Your task to perform on an android device: open the mobile data screen to see how much data has been used Image 0: 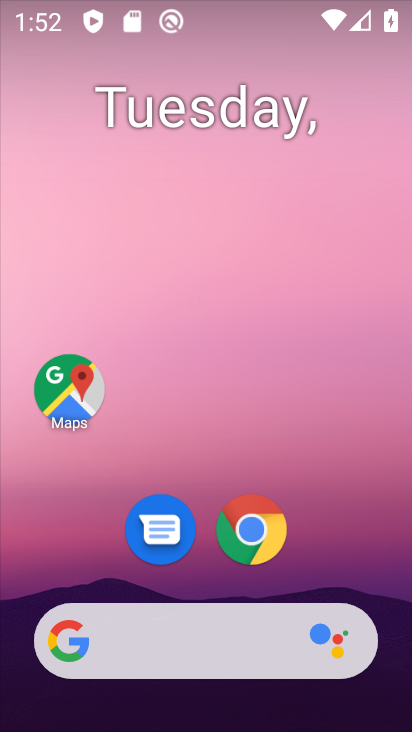
Step 0: drag from (364, 565) to (282, 121)
Your task to perform on an android device: open the mobile data screen to see how much data has been used Image 1: 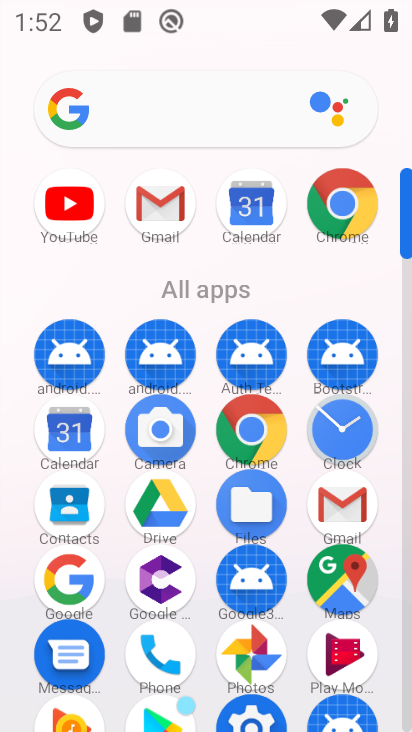
Step 1: click (250, 708)
Your task to perform on an android device: open the mobile data screen to see how much data has been used Image 2: 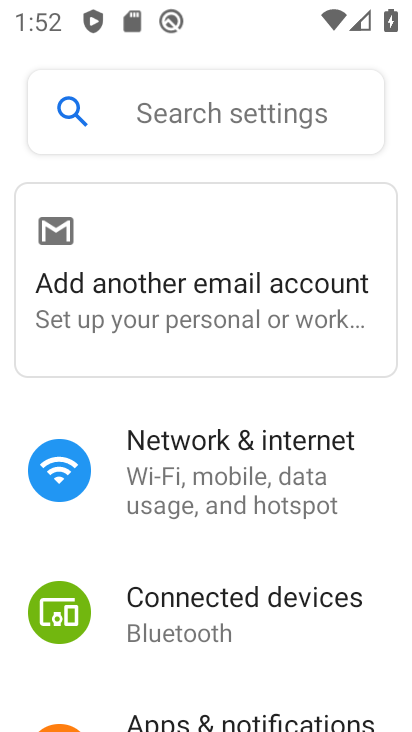
Step 2: click (272, 510)
Your task to perform on an android device: open the mobile data screen to see how much data has been used Image 3: 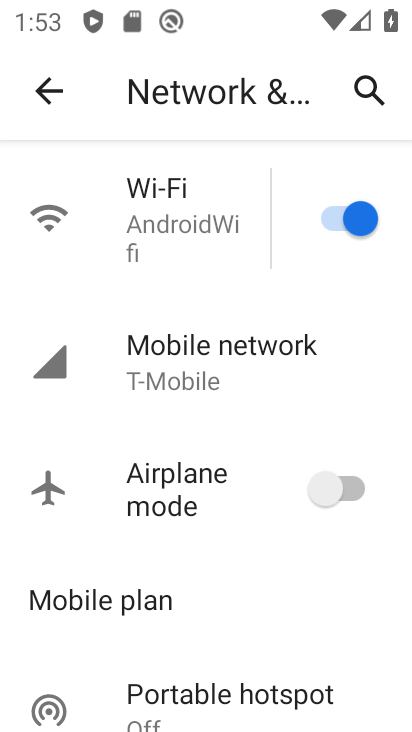
Step 3: click (259, 368)
Your task to perform on an android device: open the mobile data screen to see how much data has been used Image 4: 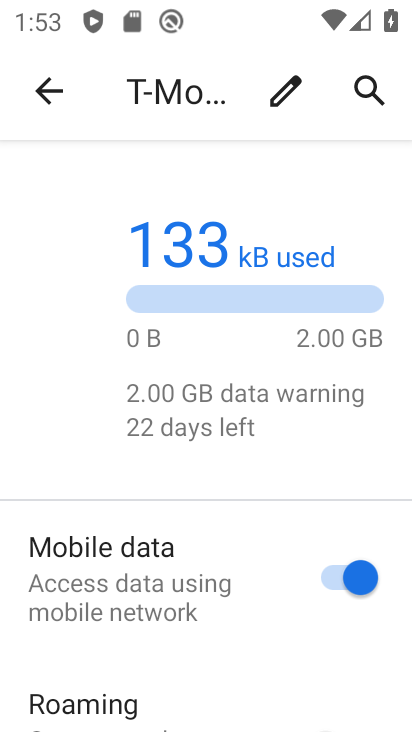
Step 4: task complete